Your task to perform on an android device: delete a single message in the gmail app Image 0: 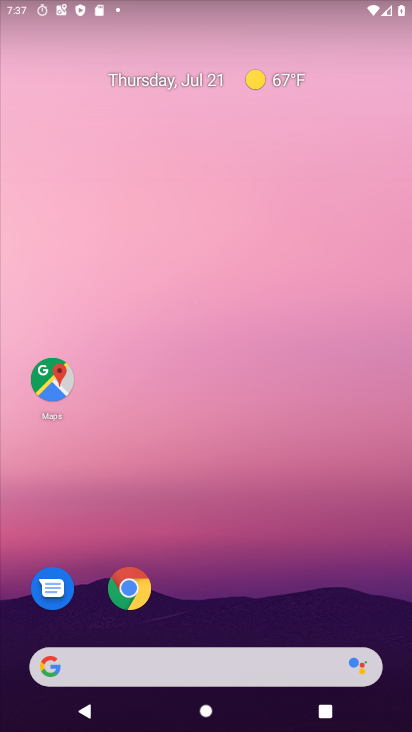
Step 0: drag from (239, 613) to (334, 143)
Your task to perform on an android device: delete a single message in the gmail app Image 1: 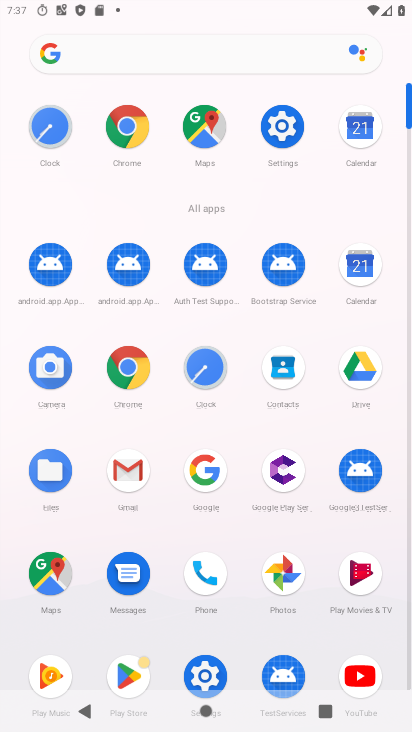
Step 1: click (129, 466)
Your task to perform on an android device: delete a single message in the gmail app Image 2: 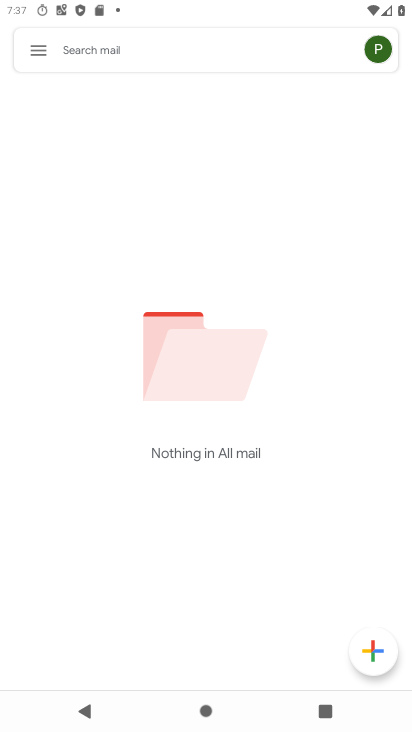
Step 2: click (33, 49)
Your task to perform on an android device: delete a single message in the gmail app Image 3: 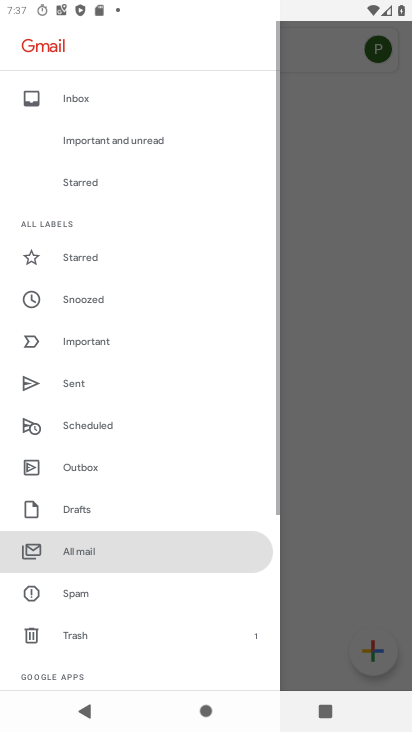
Step 3: click (77, 105)
Your task to perform on an android device: delete a single message in the gmail app Image 4: 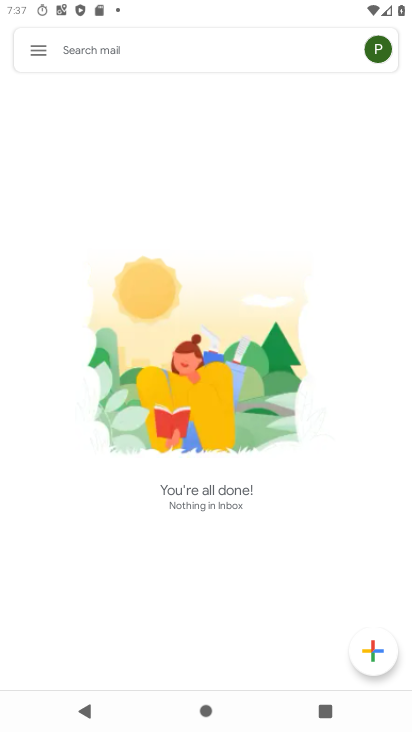
Step 4: task complete